Your task to perform on an android device: uninstall "Spotify: Music and Podcasts" Image 0: 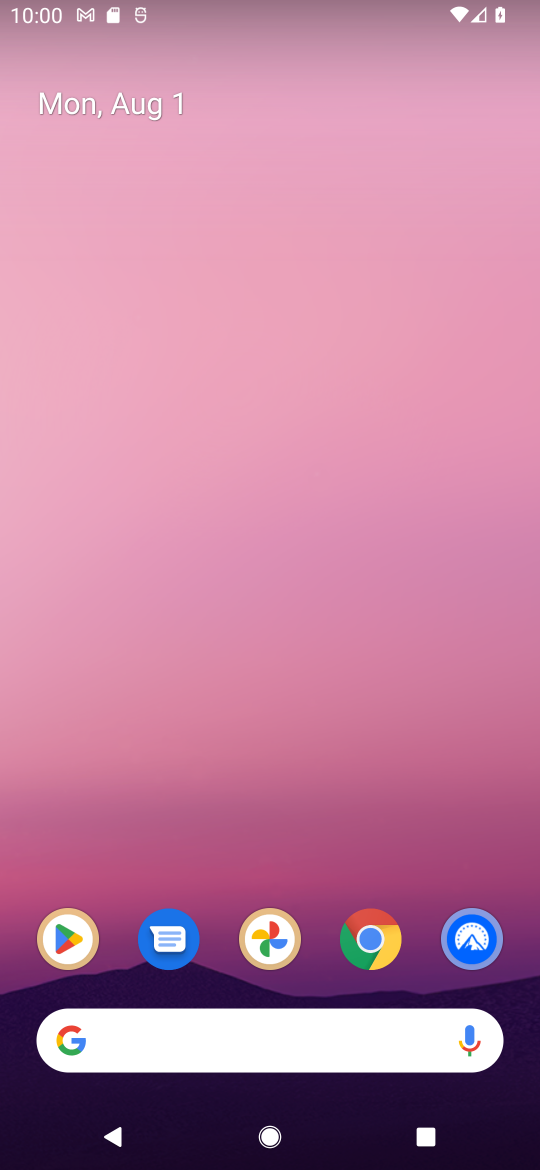
Step 0: click (67, 938)
Your task to perform on an android device: uninstall "Spotify: Music and Podcasts" Image 1: 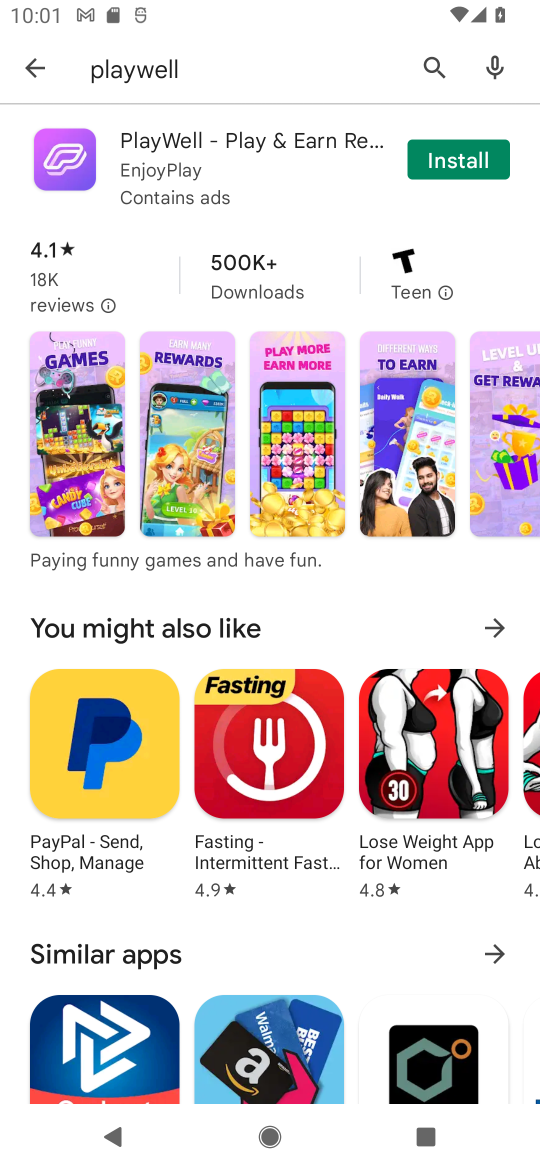
Step 1: click (439, 67)
Your task to perform on an android device: uninstall "Spotify: Music and Podcasts" Image 2: 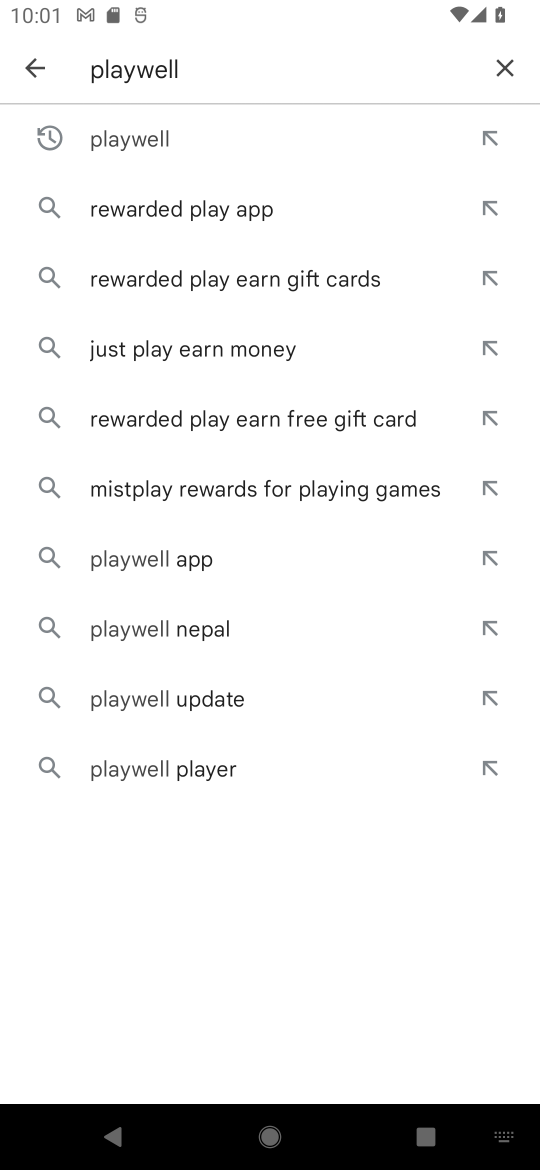
Step 2: click (502, 60)
Your task to perform on an android device: uninstall "Spotify: Music and Podcasts" Image 3: 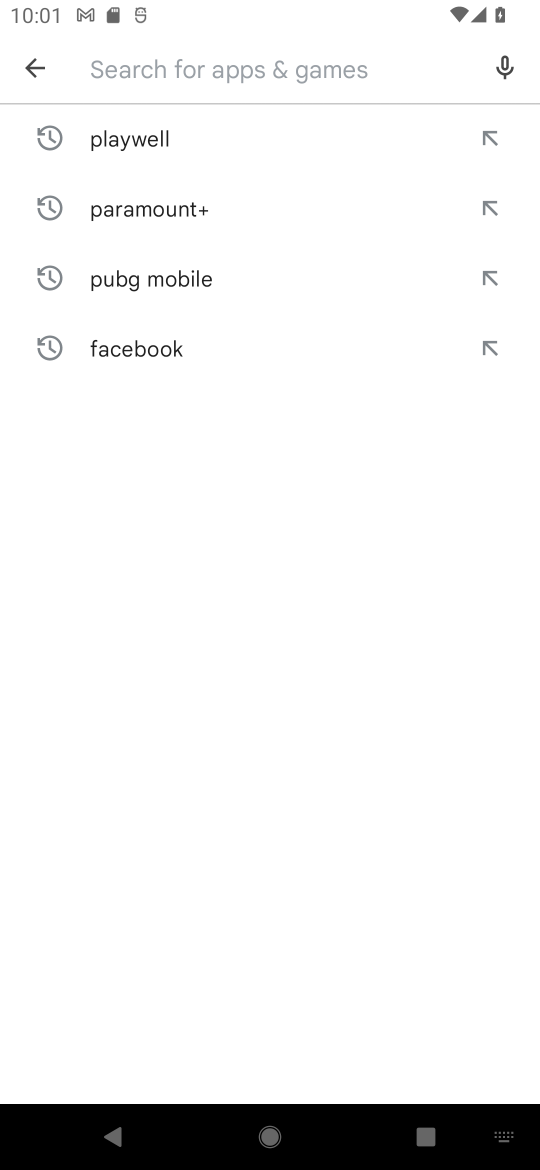
Step 3: type "spotify"
Your task to perform on an android device: uninstall "Spotify: Music and Podcasts" Image 4: 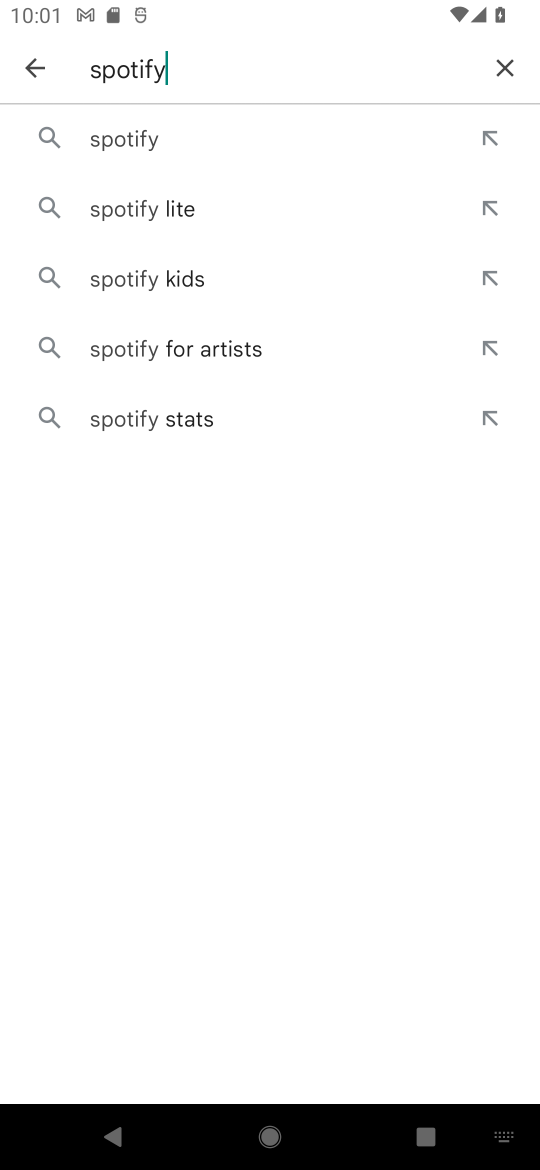
Step 4: click (110, 147)
Your task to perform on an android device: uninstall "Spotify: Music and Podcasts" Image 5: 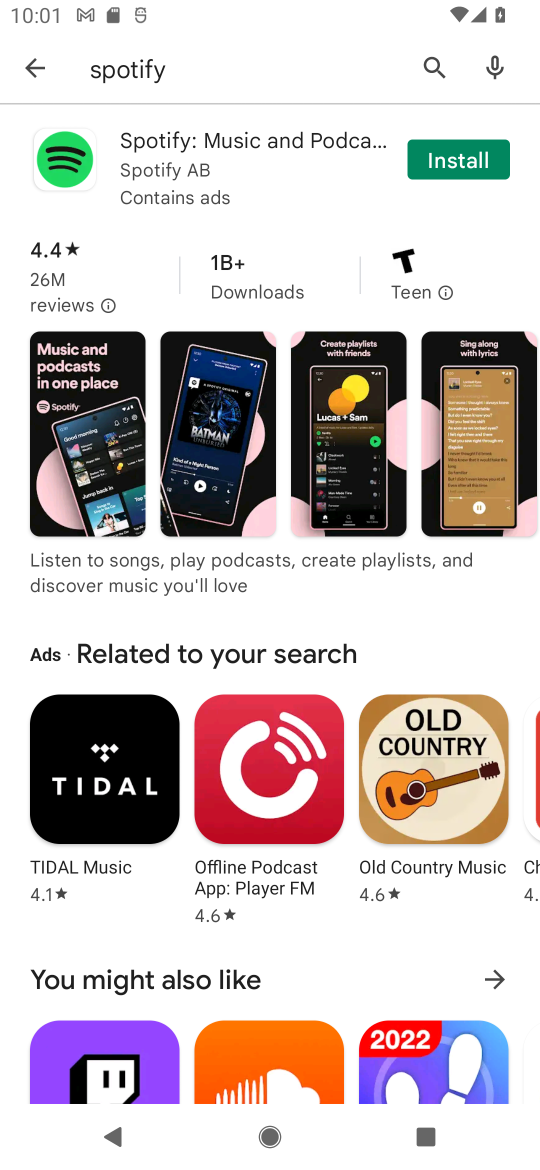
Step 5: task complete